Your task to perform on an android device: Go to battery settings Image 0: 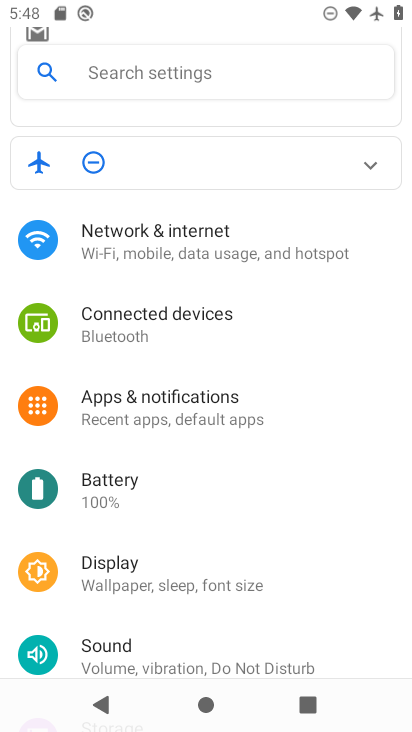
Step 0: click (156, 490)
Your task to perform on an android device: Go to battery settings Image 1: 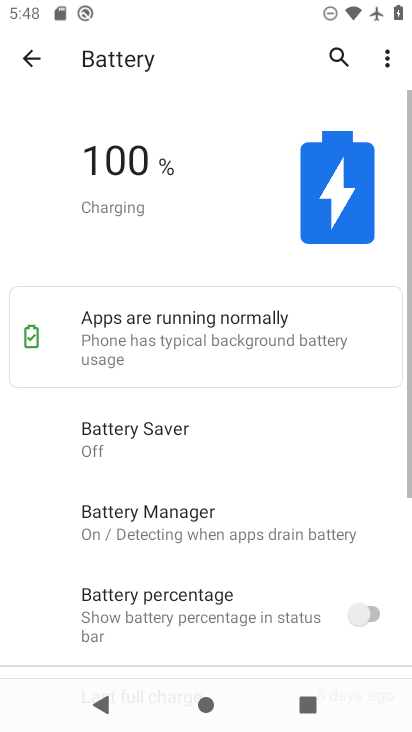
Step 1: task complete